Your task to perform on an android device: Go to Amazon Image 0: 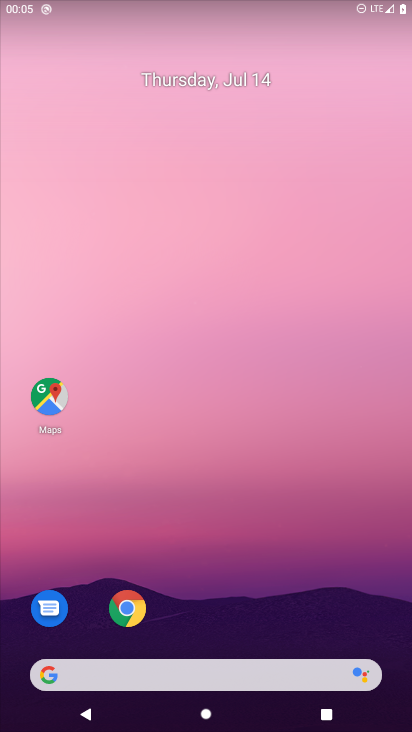
Step 0: press home button
Your task to perform on an android device: Go to Amazon Image 1: 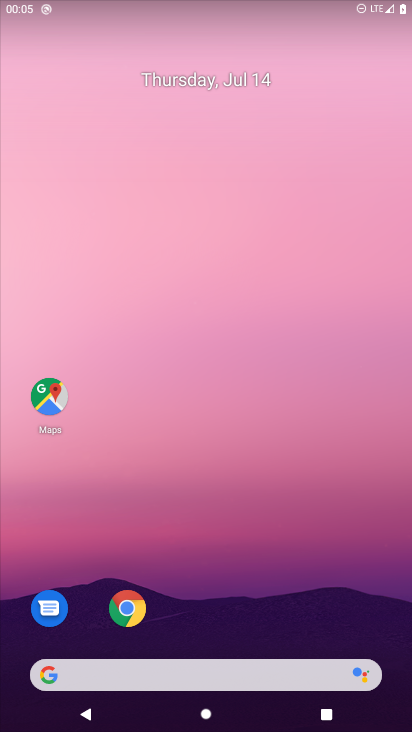
Step 1: click (123, 625)
Your task to perform on an android device: Go to Amazon Image 2: 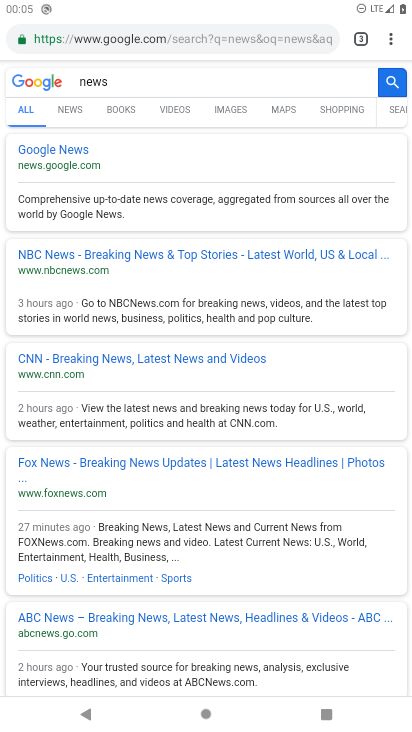
Step 2: drag from (394, 40) to (271, 63)
Your task to perform on an android device: Go to Amazon Image 3: 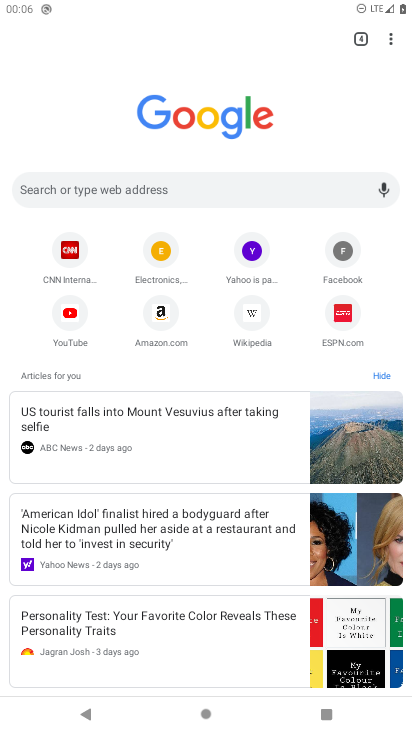
Step 3: click (190, 313)
Your task to perform on an android device: Go to Amazon Image 4: 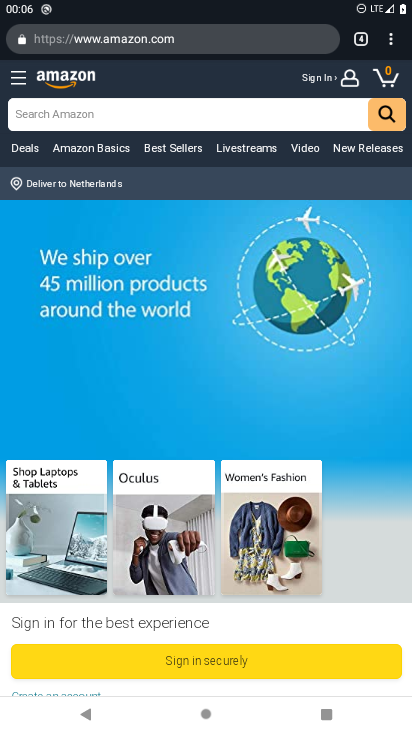
Step 4: task complete